Your task to perform on an android device: Search for corsair k70 on newegg.com, select the first entry, and add it to the cart. Image 0: 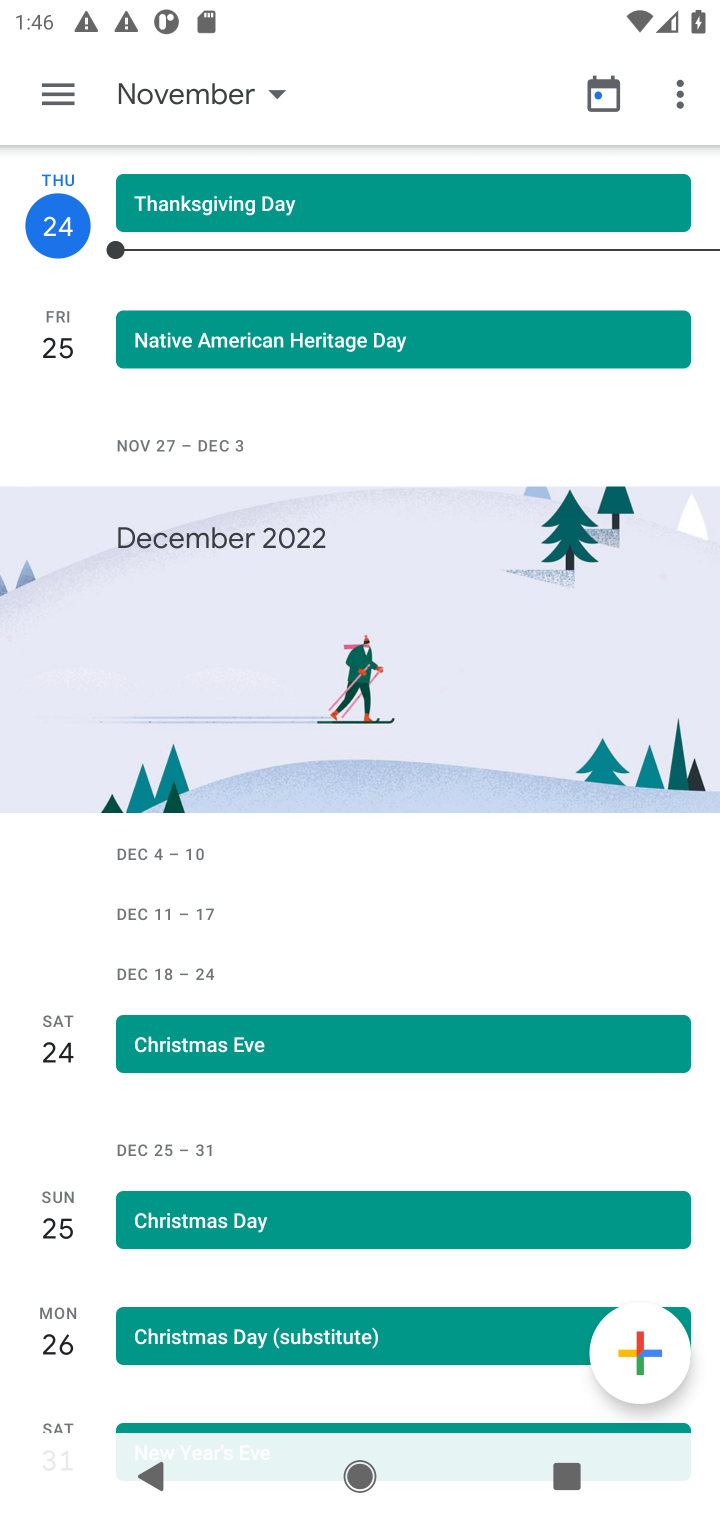
Step 0: press home button
Your task to perform on an android device: Search for corsair k70 on newegg.com, select the first entry, and add it to the cart. Image 1: 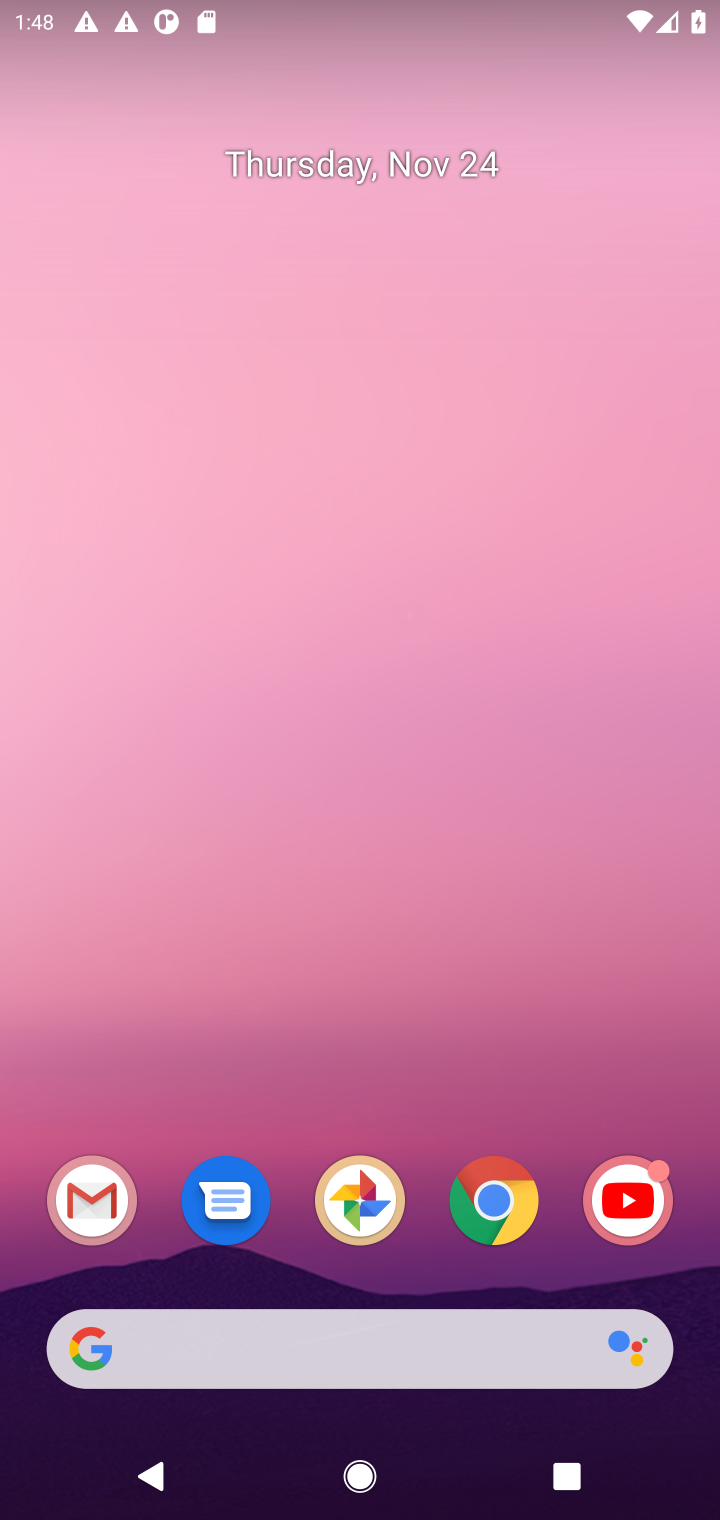
Step 1: click (357, 1375)
Your task to perform on an android device: Search for corsair k70 on newegg.com, select the first entry, and add it to the cart. Image 2: 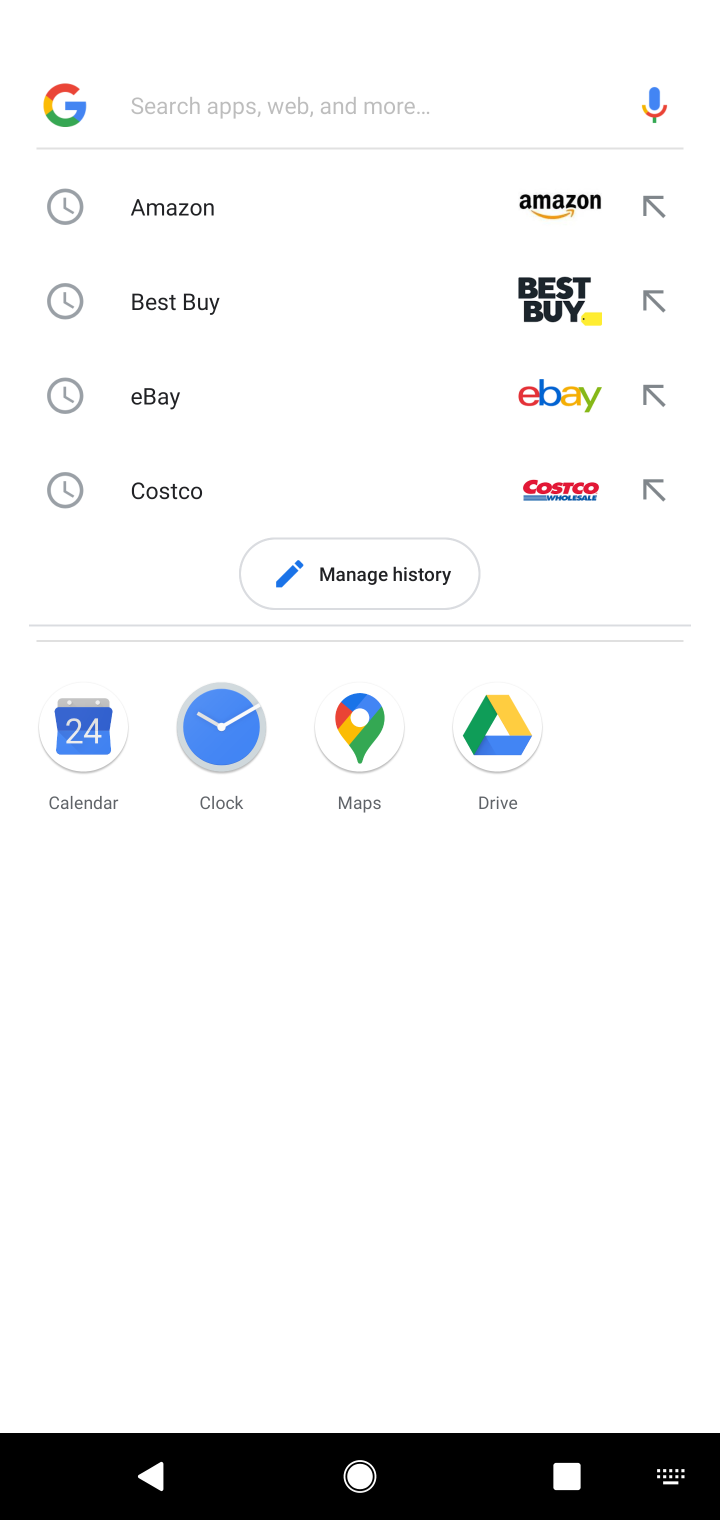
Step 2: type "newegg.com"
Your task to perform on an android device: Search for corsair k70 on newegg.com, select the first entry, and add it to the cart. Image 3: 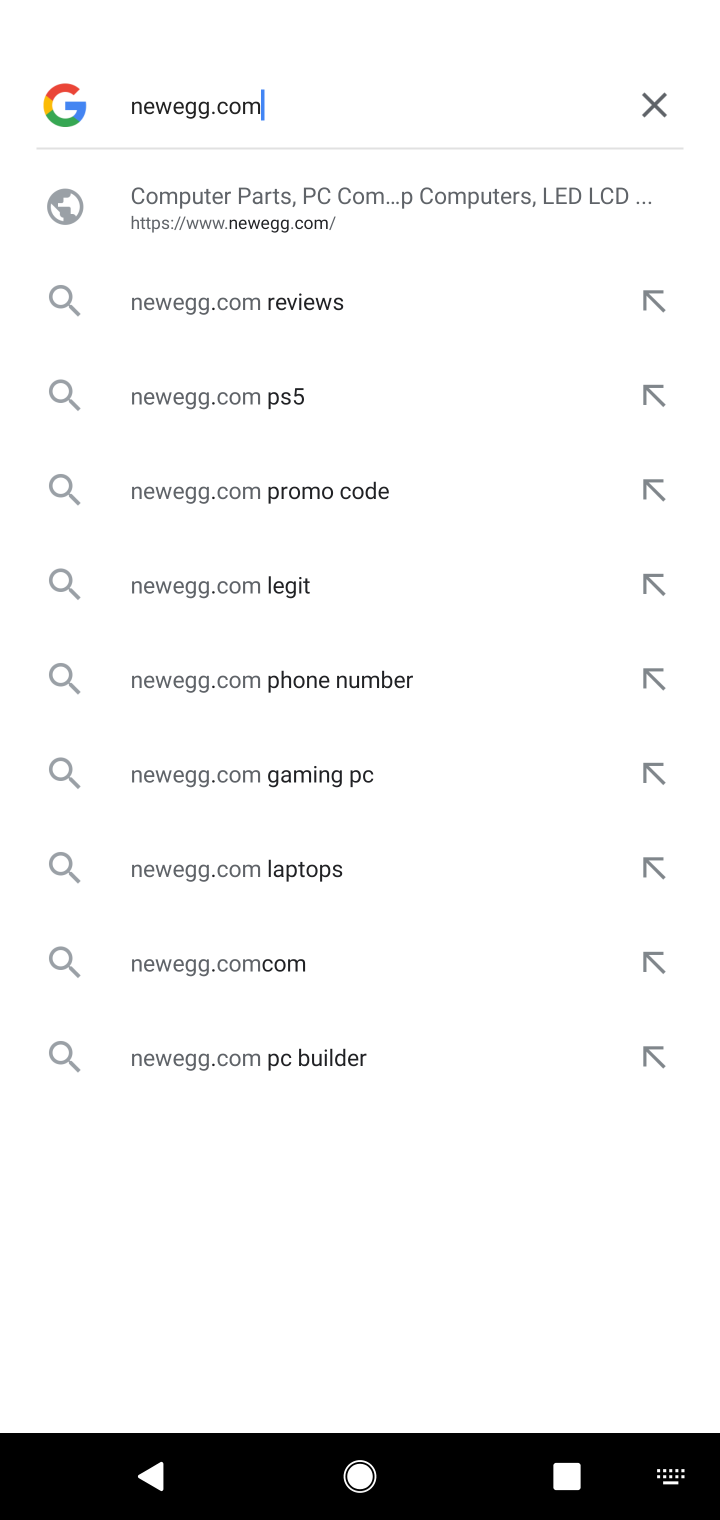
Step 3: click (309, 224)
Your task to perform on an android device: Search for corsair k70 on newegg.com, select the first entry, and add it to the cart. Image 4: 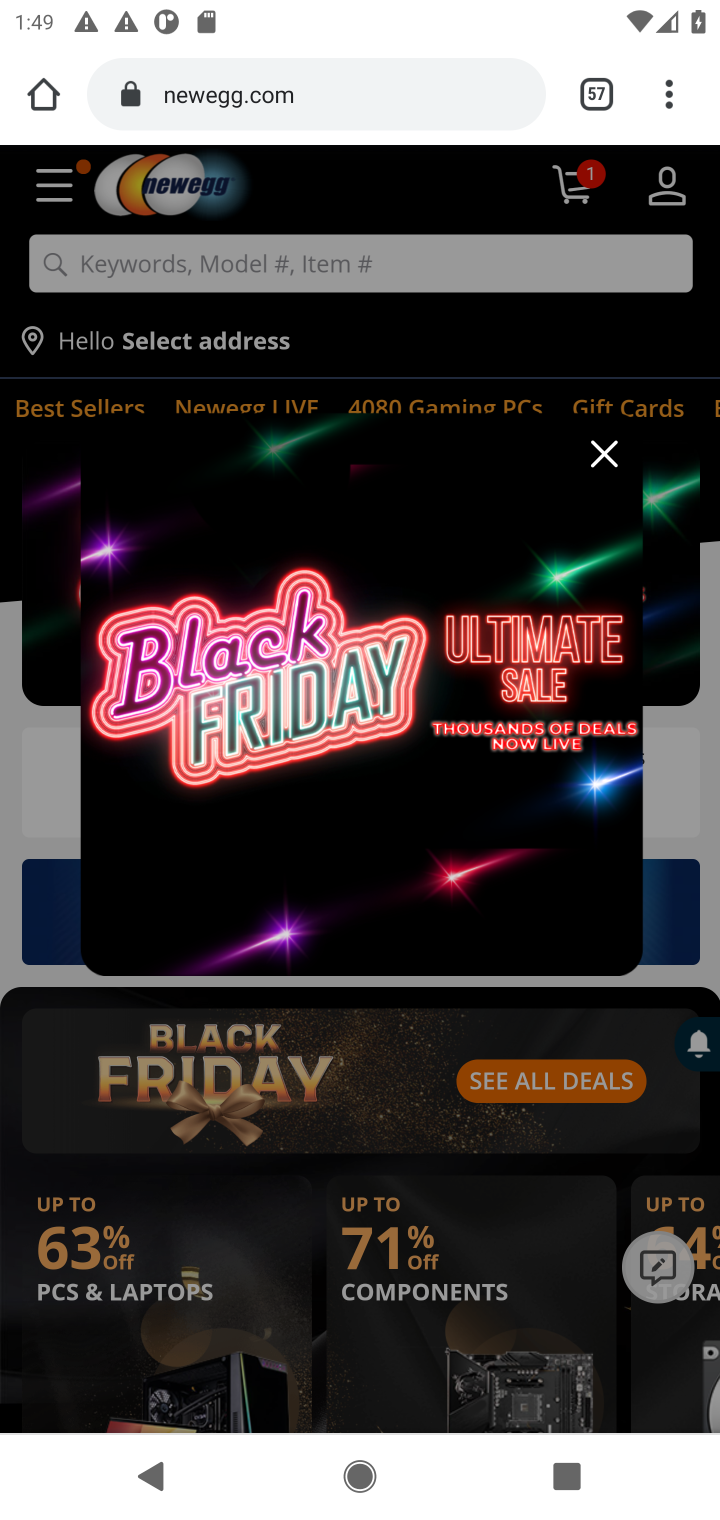
Step 4: task complete